Your task to perform on an android device: turn pop-ups off in chrome Image 0: 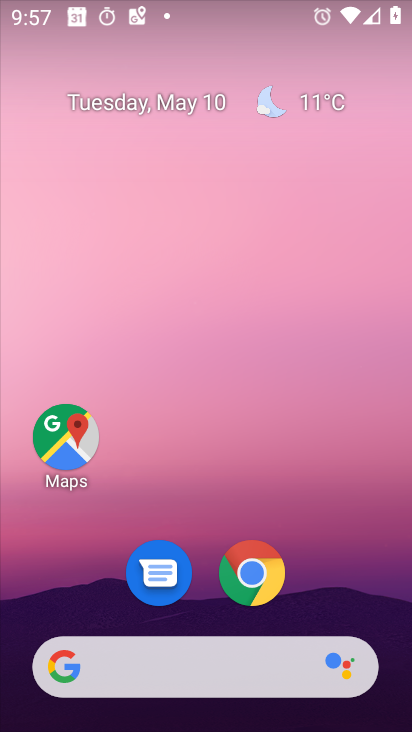
Step 0: click (263, 582)
Your task to perform on an android device: turn pop-ups off in chrome Image 1: 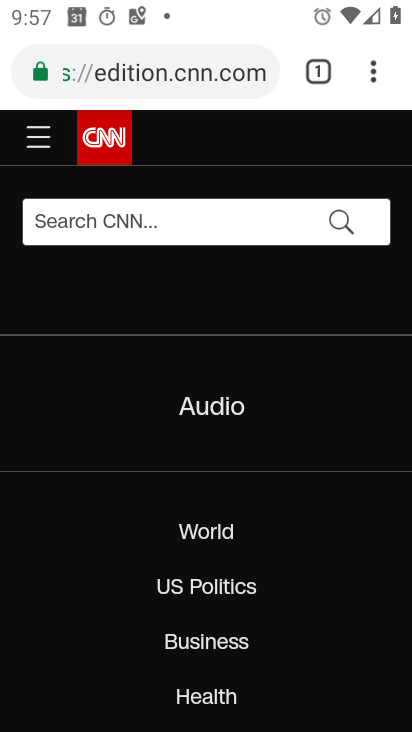
Step 1: drag from (375, 67) to (141, 575)
Your task to perform on an android device: turn pop-ups off in chrome Image 2: 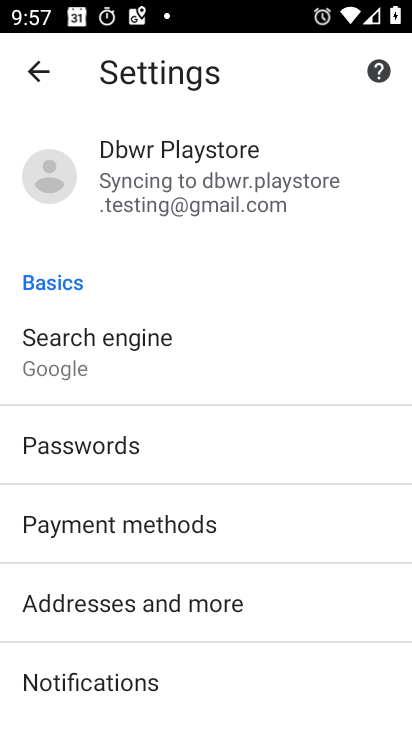
Step 2: drag from (238, 613) to (232, 296)
Your task to perform on an android device: turn pop-ups off in chrome Image 3: 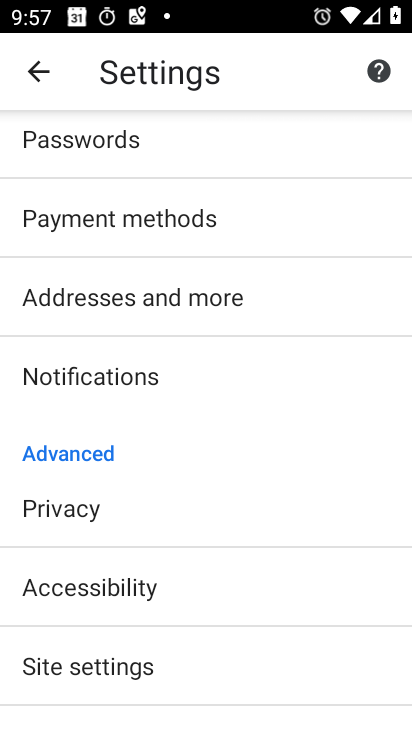
Step 3: drag from (191, 619) to (188, 358)
Your task to perform on an android device: turn pop-ups off in chrome Image 4: 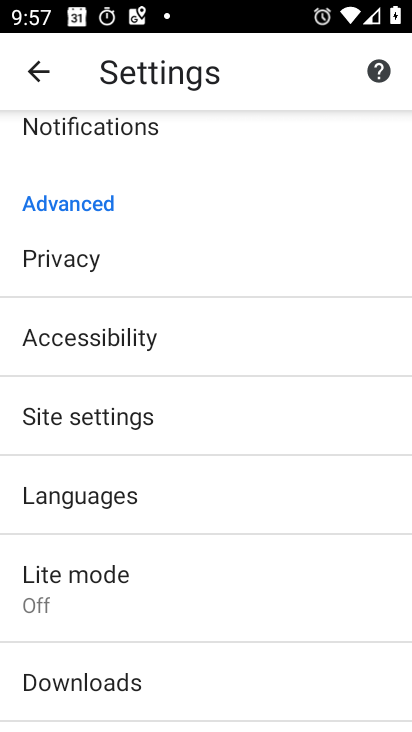
Step 4: click (83, 422)
Your task to perform on an android device: turn pop-ups off in chrome Image 5: 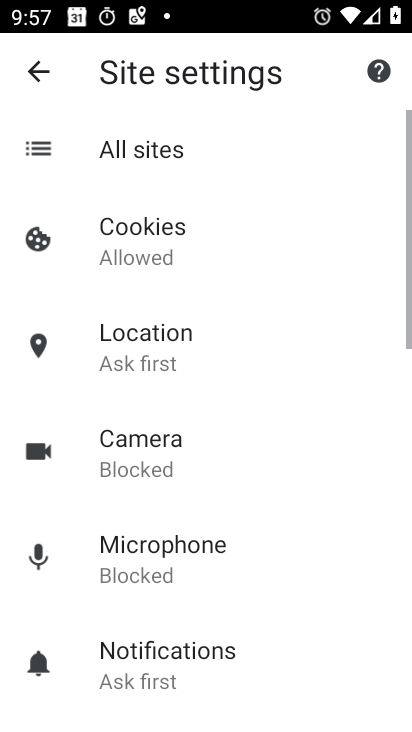
Step 5: drag from (274, 594) to (238, 256)
Your task to perform on an android device: turn pop-ups off in chrome Image 6: 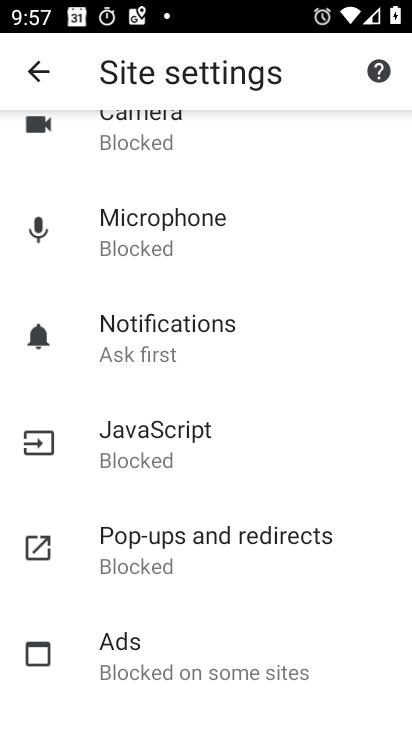
Step 6: click (154, 548)
Your task to perform on an android device: turn pop-ups off in chrome Image 7: 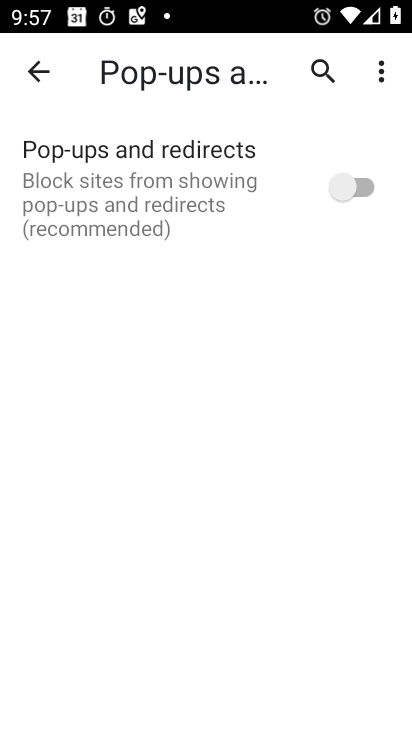
Step 7: task complete